Your task to perform on an android device: open a new tab in the chrome app Image 0: 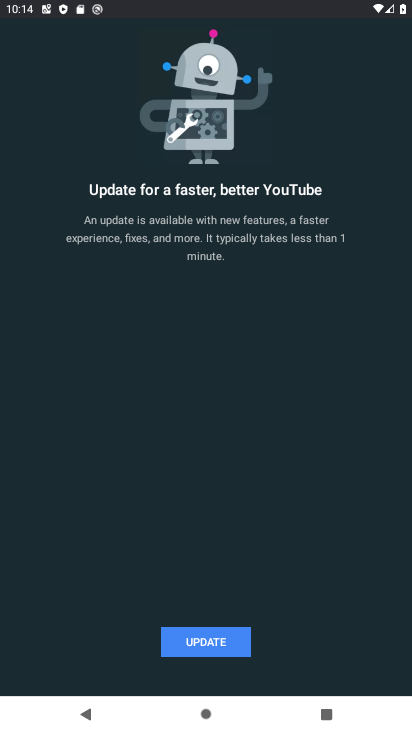
Step 0: press back button
Your task to perform on an android device: open a new tab in the chrome app Image 1: 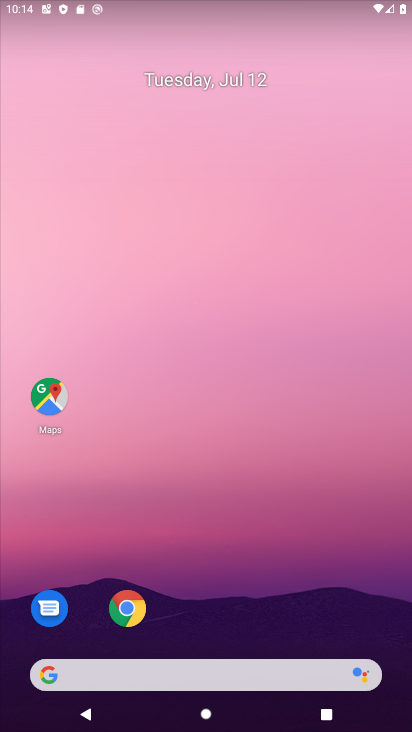
Step 1: click (128, 606)
Your task to perform on an android device: open a new tab in the chrome app Image 2: 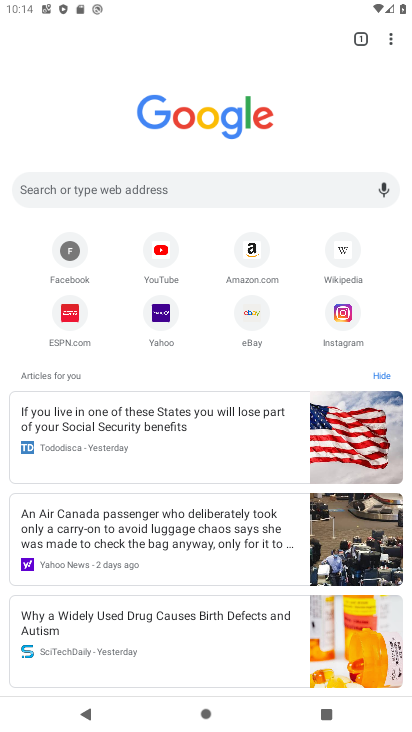
Step 2: click (386, 38)
Your task to perform on an android device: open a new tab in the chrome app Image 3: 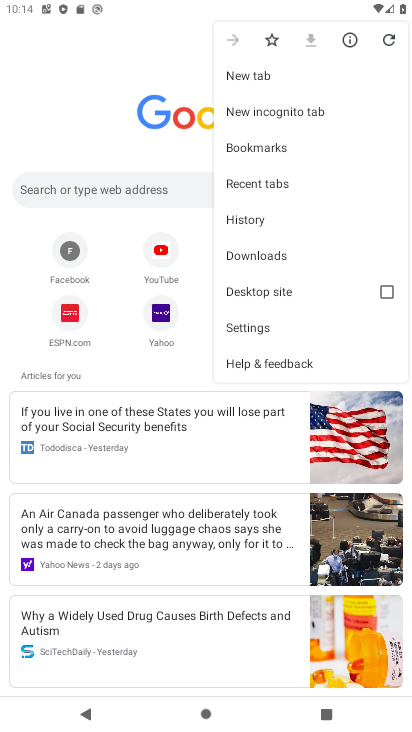
Step 3: click (287, 74)
Your task to perform on an android device: open a new tab in the chrome app Image 4: 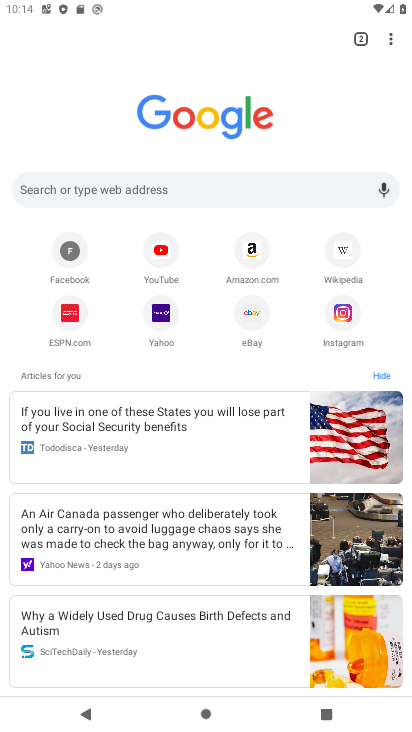
Step 4: task complete